Your task to perform on an android device: Open Youtube and go to "Your channel" Image 0: 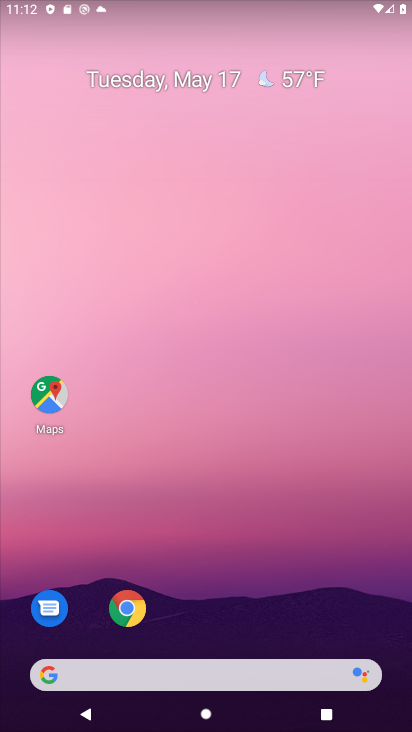
Step 0: drag from (207, 620) to (313, 237)
Your task to perform on an android device: Open Youtube and go to "Your channel" Image 1: 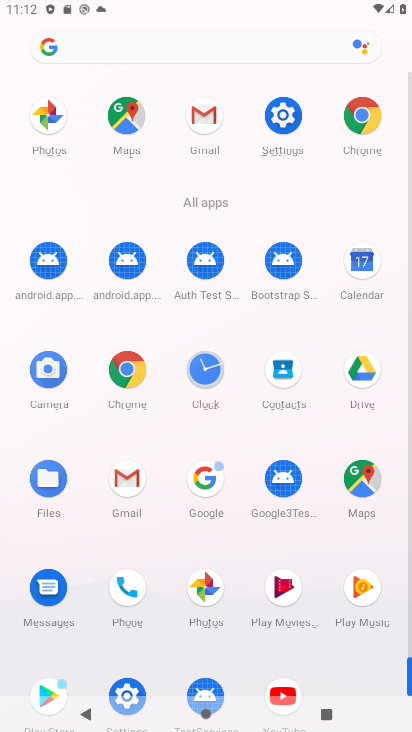
Step 1: drag from (289, 666) to (305, 566)
Your task to perform on an android device: Open Youtube and go to "Your channel" Image 2: 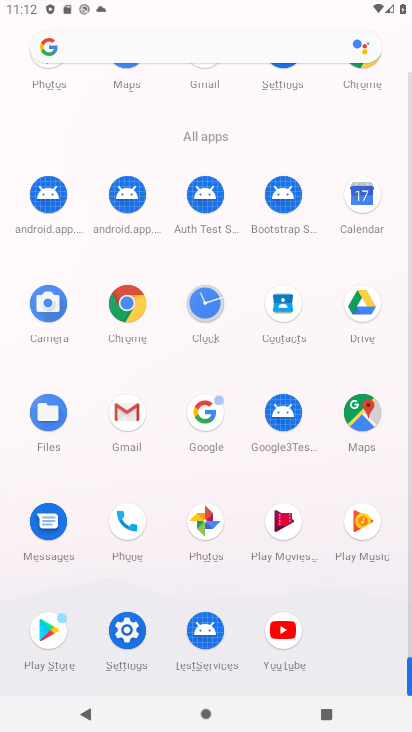
Step 2: click (290, 628)
Your task to perform on an android device: Open Youtube and go to "Your channel" Image 3: 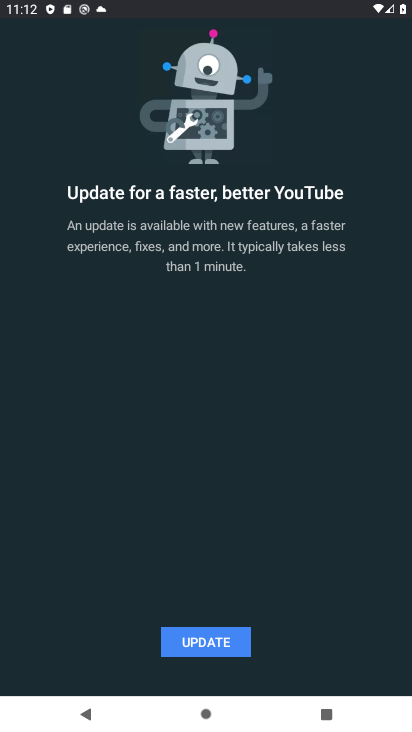
Step 3: click (201, 637)
Your task to perform on an android device: Open Youtube and go to "Your channel" Image 4: 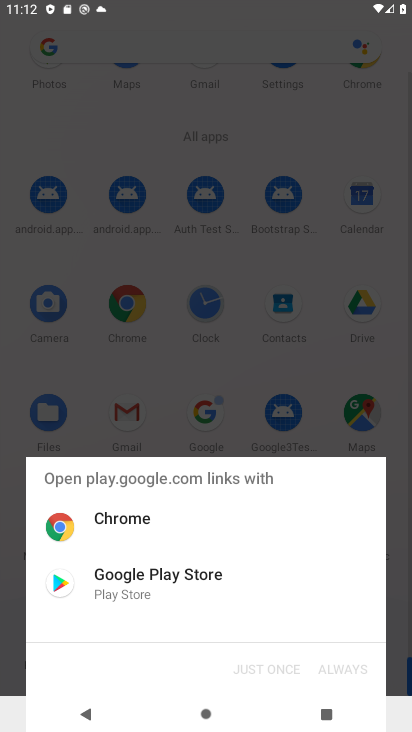
Step 4: click (160, 585)
Your task to perform on an android device: Open Youtube and go to "Your channel" Image 5: 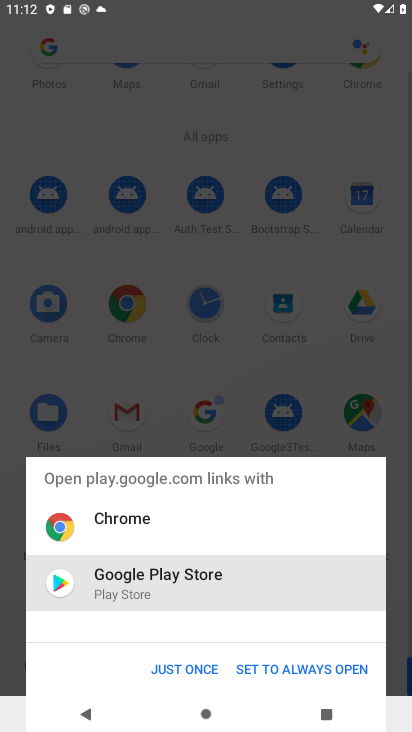
Step 5: click (193, 669)
Your task to perform on an android device: Open Youtube and go to "Your channel" Image 6: 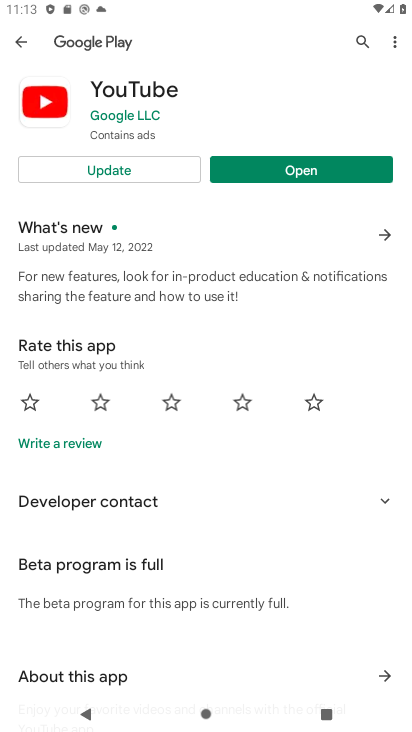
Step 6: click (114, 160)
Your task to perform on an android device: Open Youtube and go to "Your channel" Image 7: 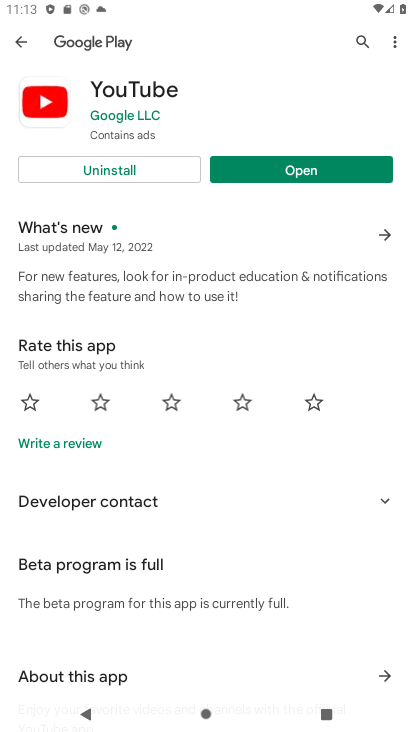
Step 7: click (292, 174)
Your task to perform on an android device: Open Youtube and go to "Your channel" Image 8: 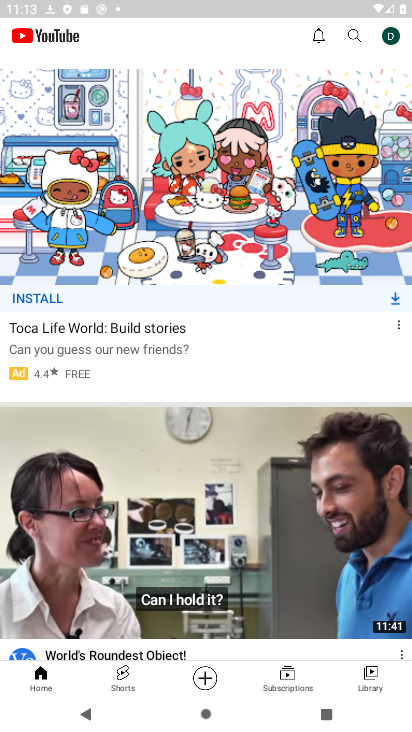
Step 8: click (392, 38)
Your task to perform on an android device: Open Youtube and go to "Your channel" Image 9: 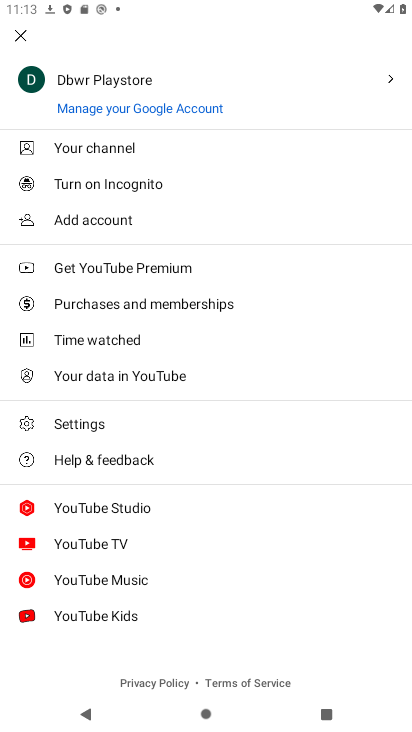
Step 9: click (109, 143)
Your task to perform on an android device: Open Youtube and go to "Your channel" Image 10: 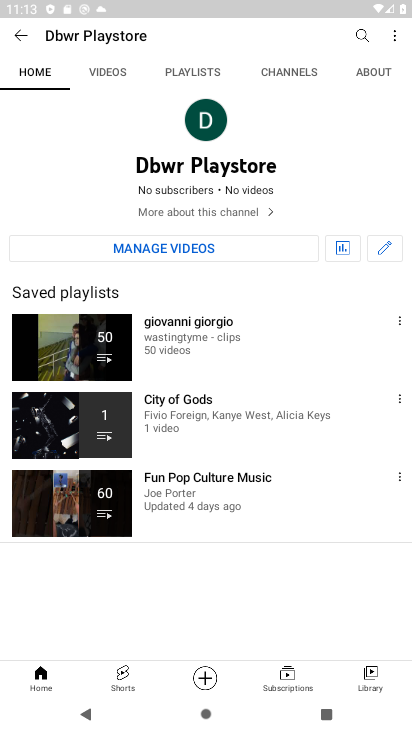
Step 10: task complete